Your task to perform on an android device: Open maps Image 0: 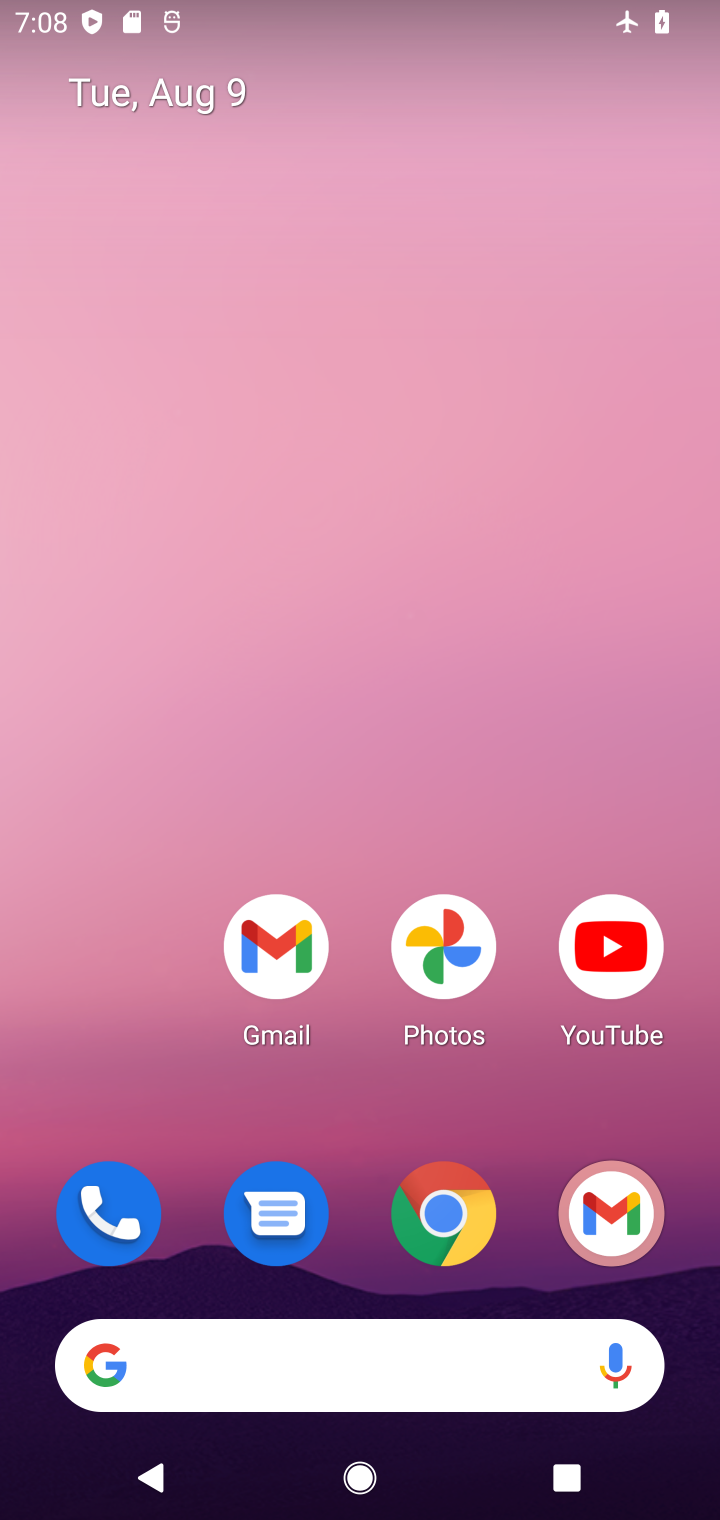
Step 0: drag from (388, 1274) to (285, 309)
Your task to perform on an android device: Open maps Image 1: 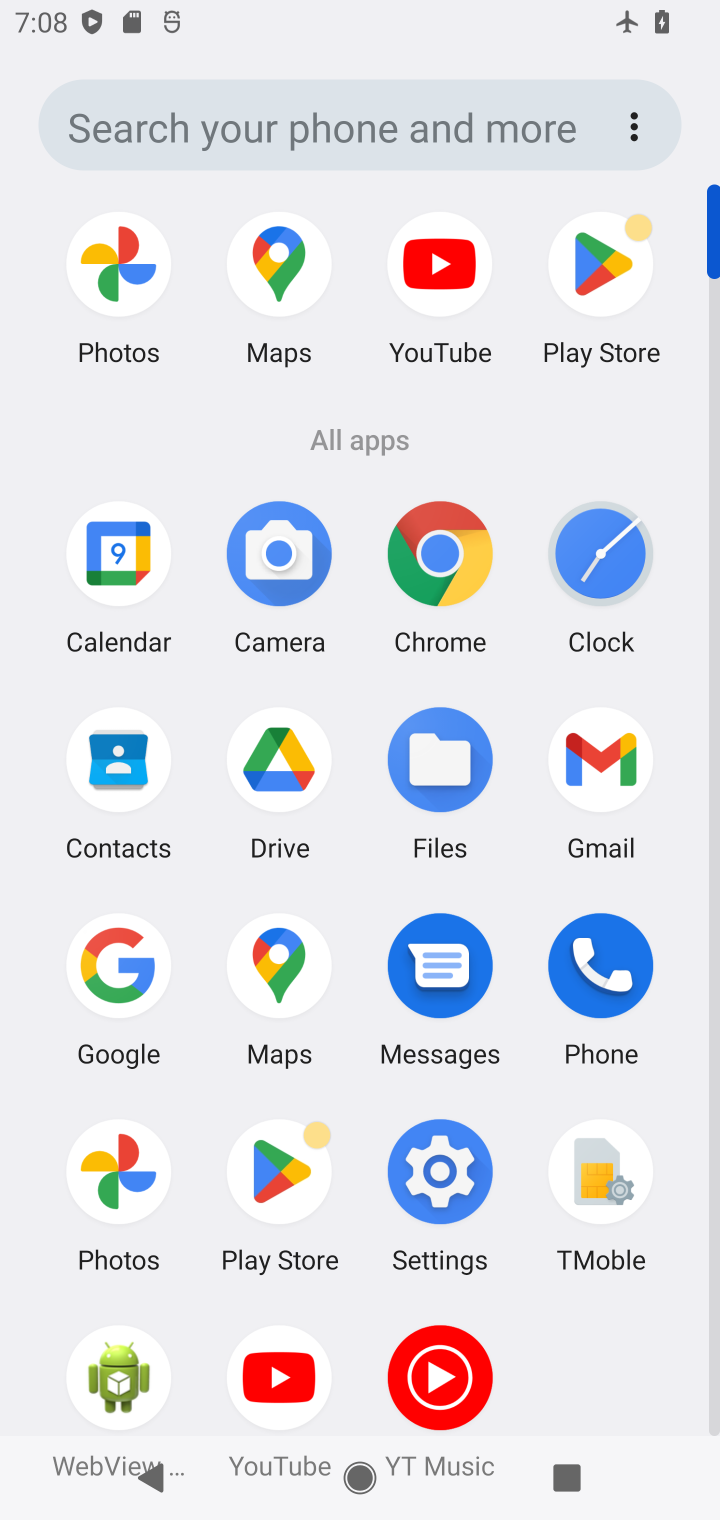
Step 1: click (281, 950)
Your task to perform on an android device: Open maps Image 2: 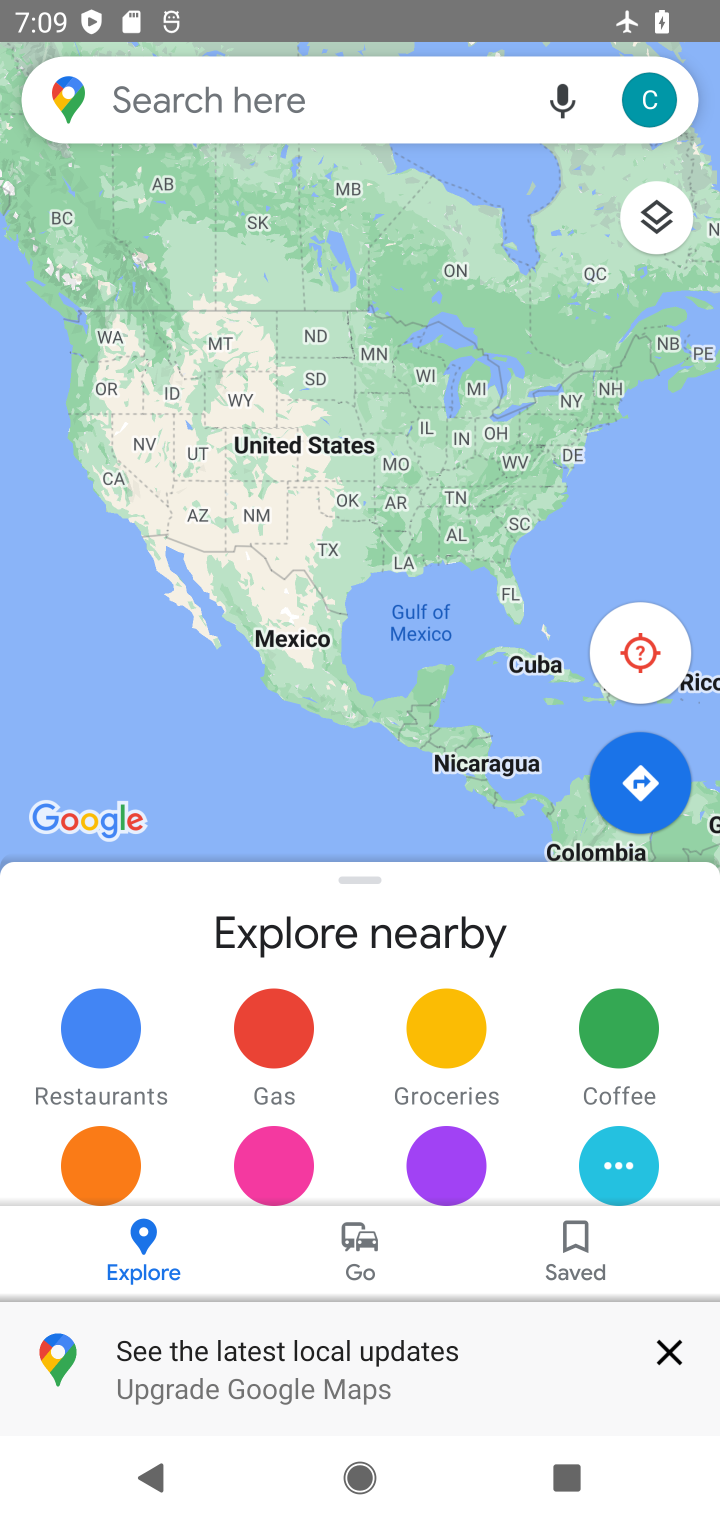
Step 2: task complete